Your task to perform on an android device: open chrome privacy settings Image 0: 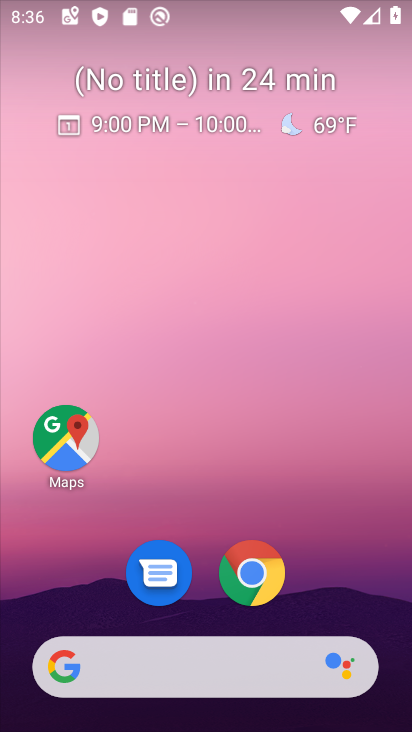
Step 0: click (265, 568)
Your task to perform on an android device: open chrome privacy settings Image 1: 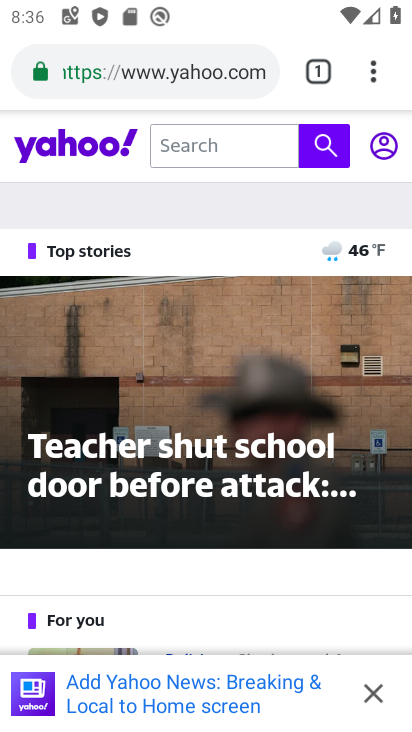
Step 1: click (367, 69)
Your task to perform on an android device: open chrome privacy settings Image 2: 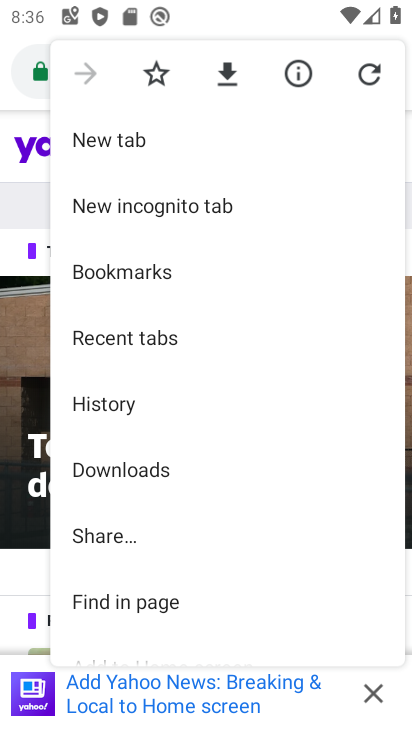
Step 2: drag from (154, 559) to (177, 271)
Your task to perform on an android device: open chrome privacy settings Image 3: 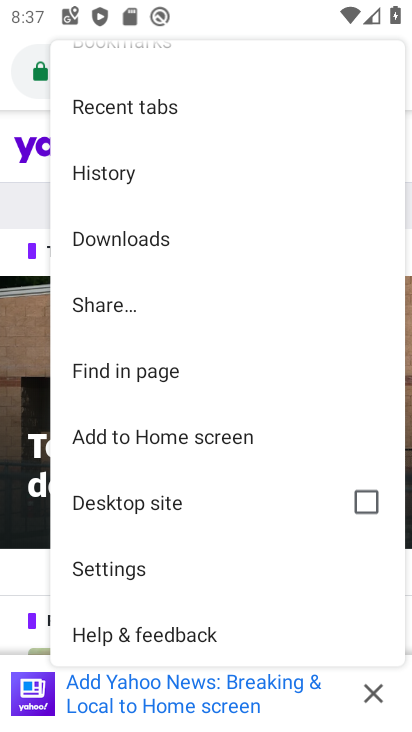
Step 3: click (121, 582)
Your task to perform on an android device: open chrome privacy settings Image 4: 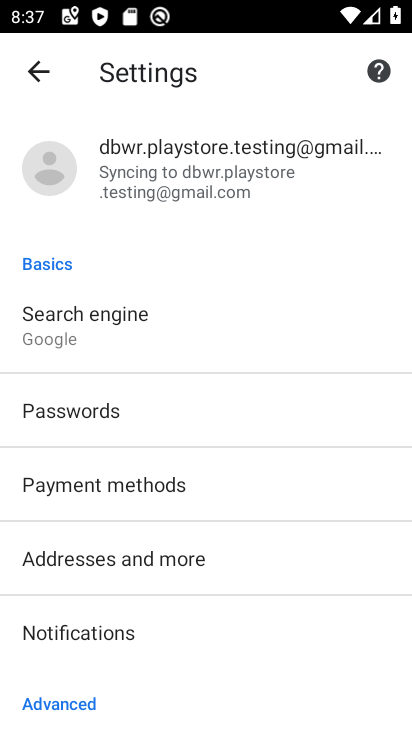
Step 4: drag from (157, 551) to (199, 294)
Your task to perform on an android device: open chrome privacy settings Image 5: 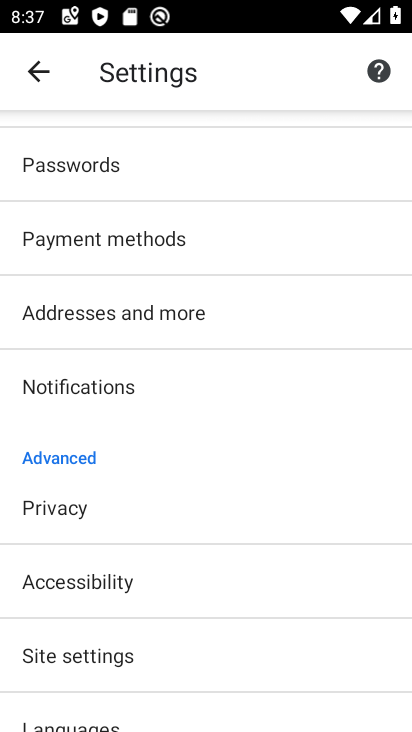
Step 5: drag from (122, 622) to (125, 511)
Your task to perform on an android device: open chrome privacy settings Image 6: 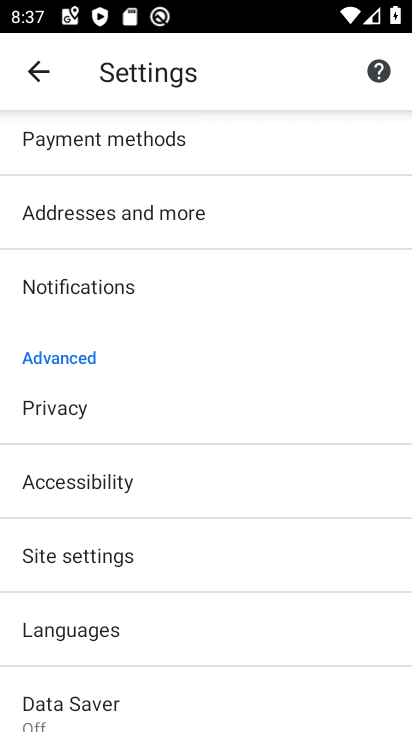
Step 6: click (80, 410)
Your task to perform on an android device: open chrome privacy settings Image 7: 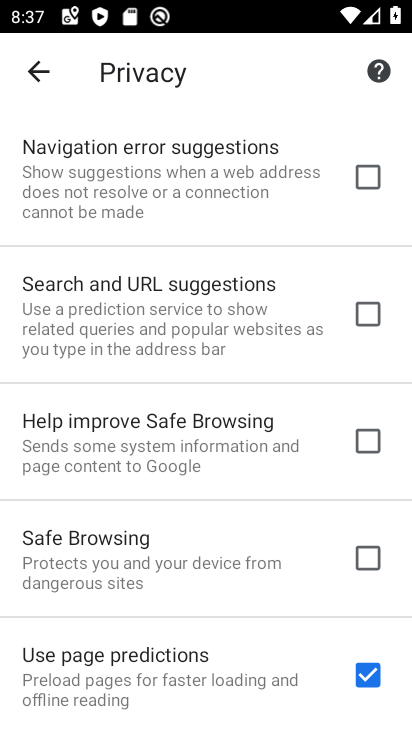
Step 7: task complete